Your task to perform on an android device: Show me productivity apps on the Play Store Image 0: 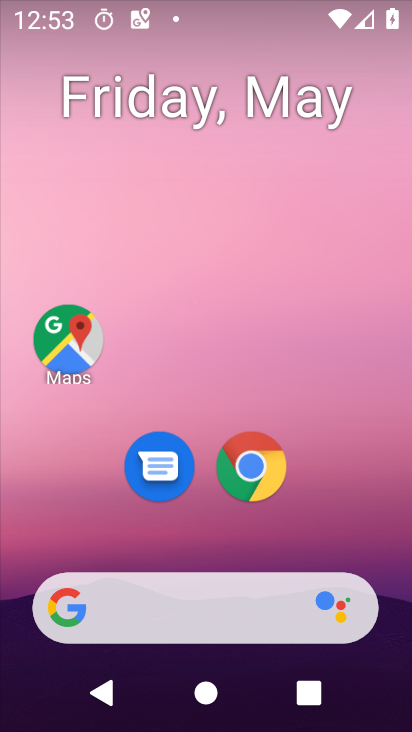
Step 0: drag from (400, 628) to (294, 79)
Your task to perform on an android device: Show me productivity apps on the Play Store Image 1: 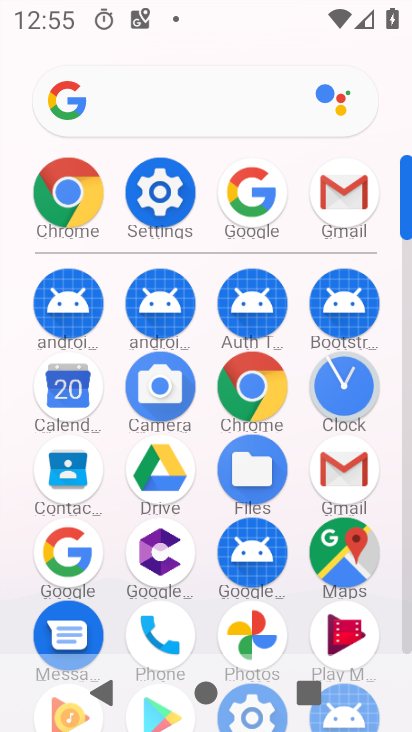
Step 1: drag from (245, 590) to (256, 346)
Your task to perform on an android device: Show me productivity apps on the Play Store Image 2: 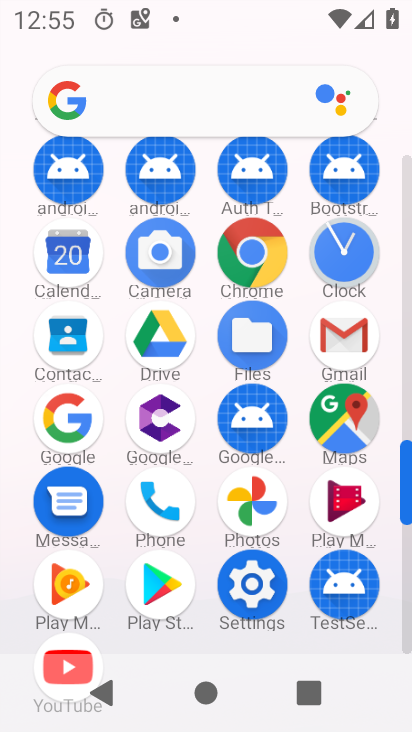
Step 2: click (166, 592)
Your task to perform on an android device: Show me productivity apps on the Play Store Image 3: 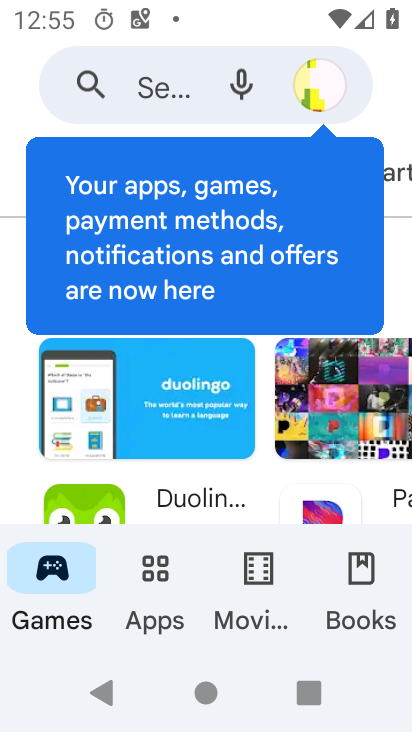
Step 3: task complete